Your task to perform on an android device: change the clock style Image 0: 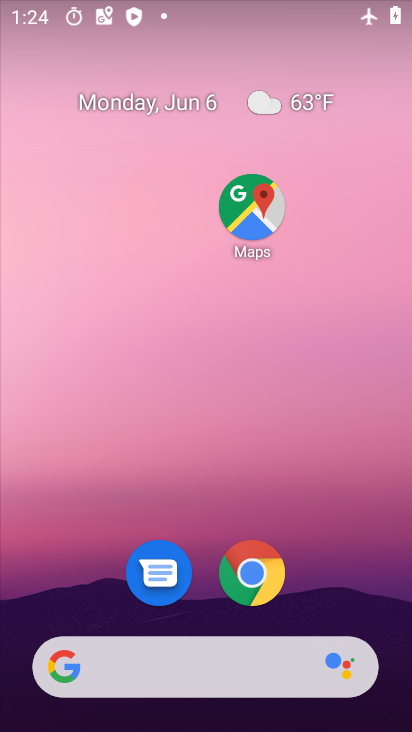
Step 0: drag from (134, 428) to (163, 0)
Your task to perform on an android device: change the clock style Image 1: 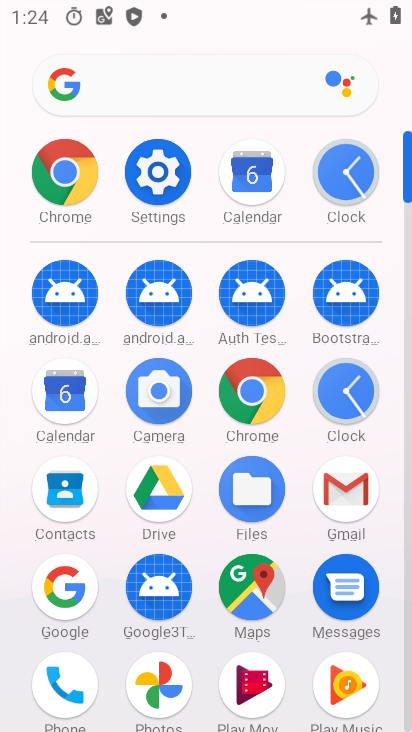
Step 1: click (344, 395)
Your task to perform on an android device: change the clock style Image 2: 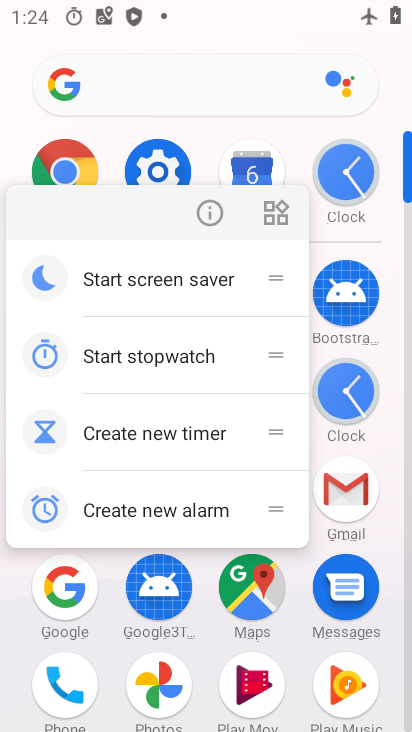
Step 2: click (353, 397)
Your task to perform on an android device: change the clock style Image 3: 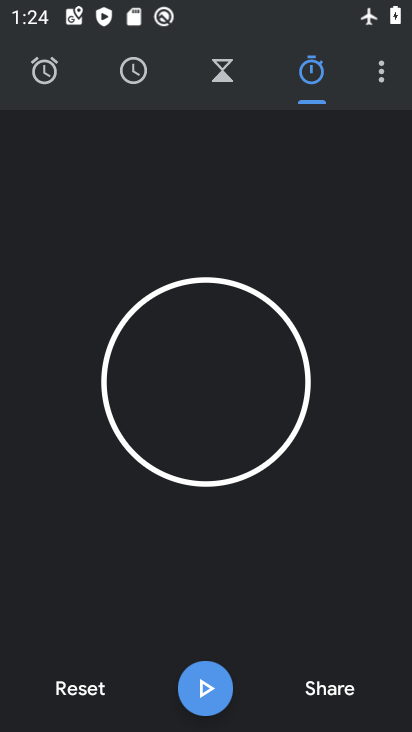
Step 3: click (381, 86)
Your task to perform on an android device: change the clock style Image 4: 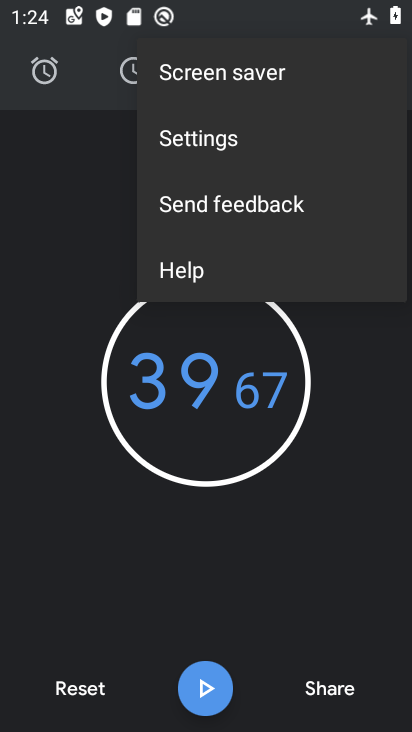
Step 4: click (245, 144)
Your task to perform on an android device: change the clock style Image 5: 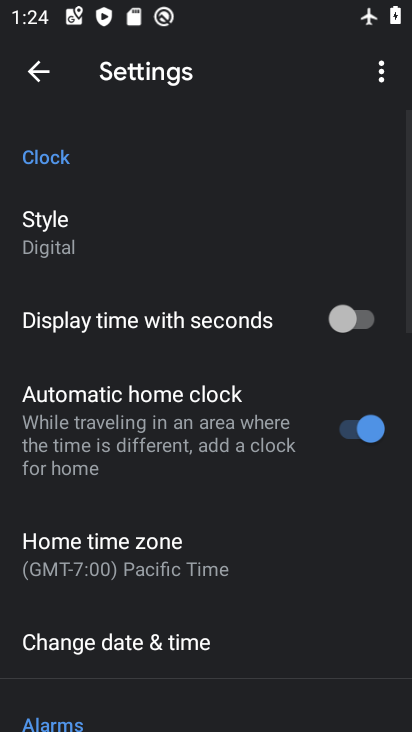
Step 5: click (121, 250)
Your task to perform on an android device: change the clock style Image 6: 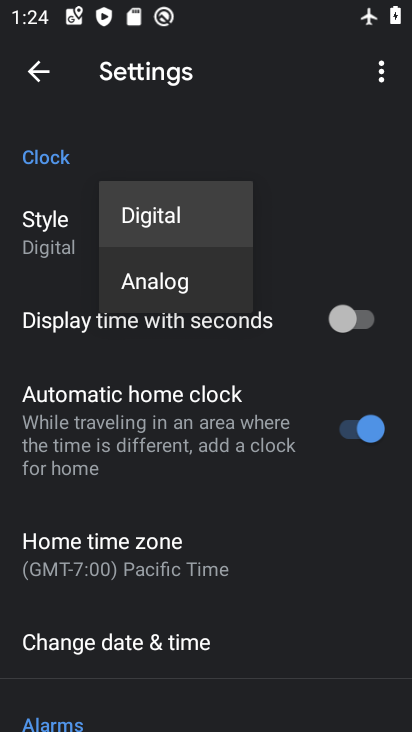
Step 6: click (155, 294)
Your task to perform on an android device: change the clock style Image 7: 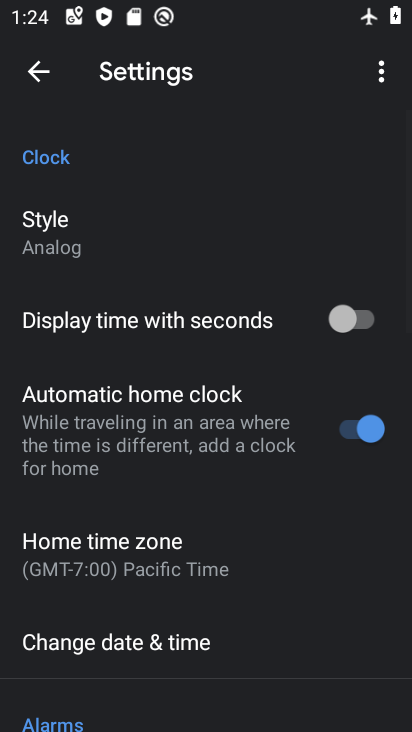
Step 7: task complete